Your task to perform on an android device: move a message to another label in the gmail app Image 0: 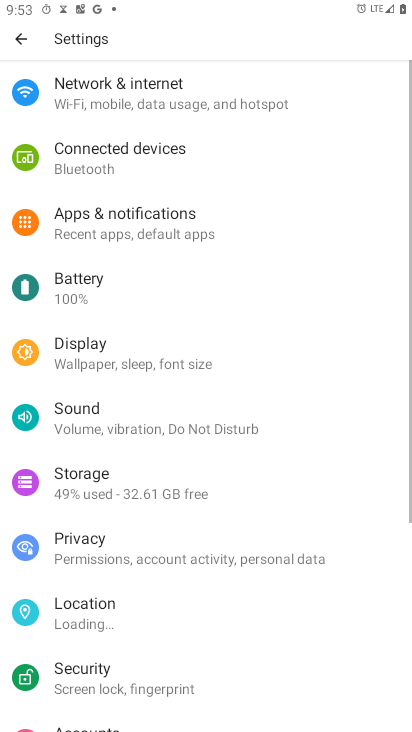
Step 0: drag from (271, 688) to (224, 423)
Your task to perform on an android device: move a message to another label in the gmail app Image 1: 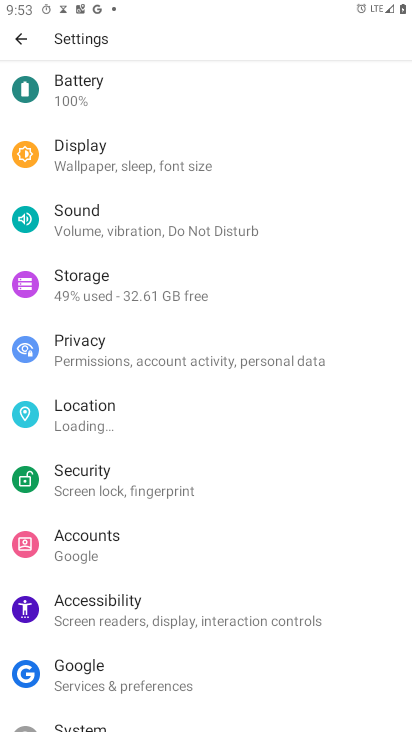
Step 1: press back button
Your task to perform on an android device: move a message to another label in the gmail app Image 2: 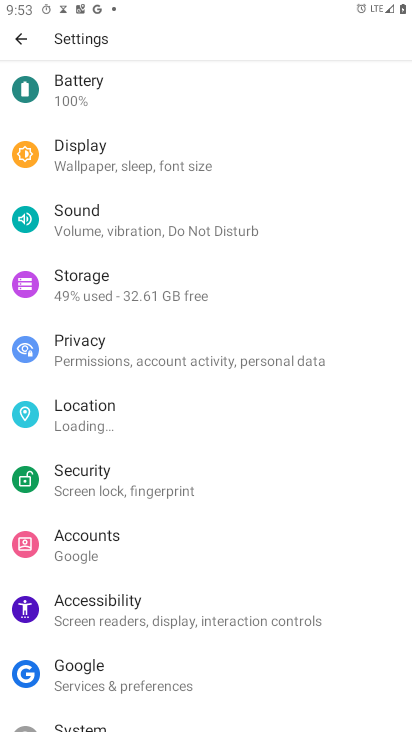
Step 2: press back button
Your task to perform on an android device: move a message to another label in the gmail app Image 3: 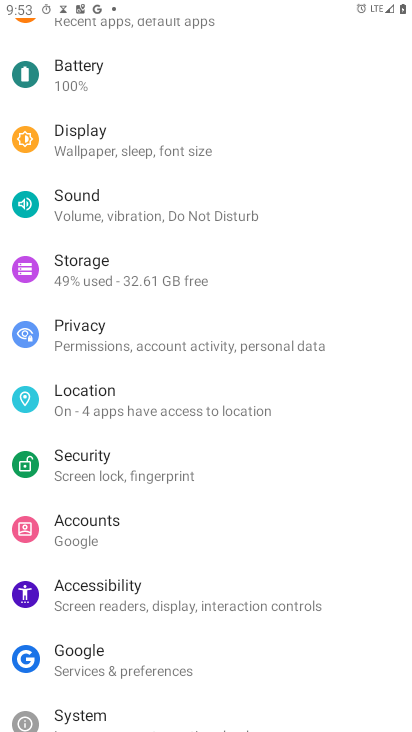
Step 3: press home button
Your task to perform on an android device: move a message to another label in the gmail app Image 4: 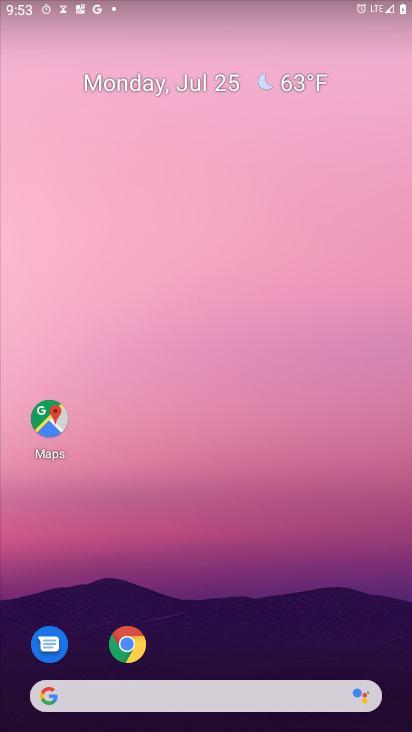
Step 4: drag from (220, 687) to (225, 376)
Your task to perform on an android device: move a message to another label in the gmail app Image 5: 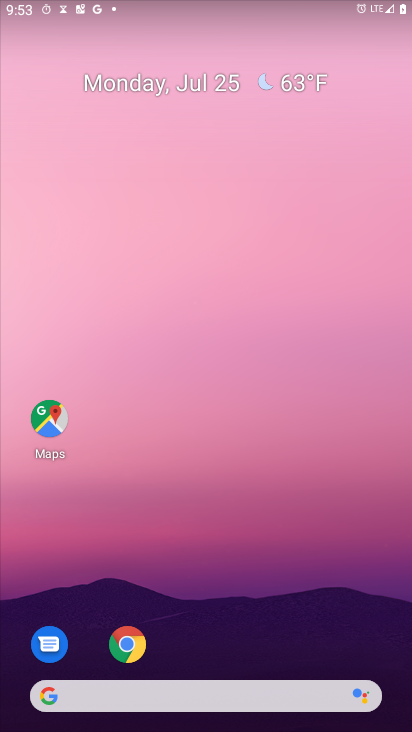
Step 5: drag from (211, 264) to (196, 225)
Your task to perform on an android device: move a message to another label in the gmail app Image 6: 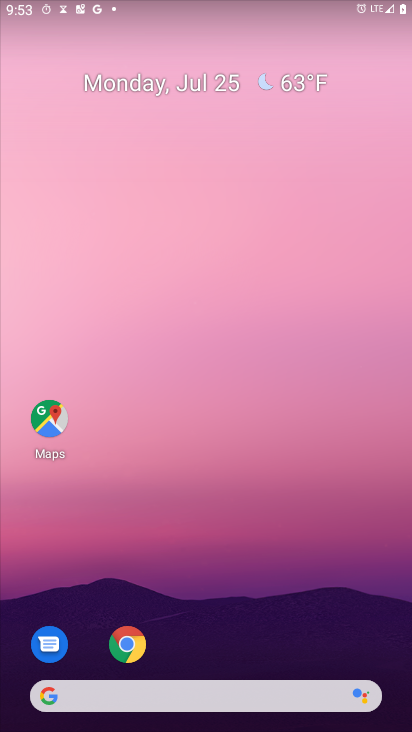
Step 6: drag from (123, 305) to (99, 138)
Your task to perform on an android device: move a message to another label in the gmail app Image 7: 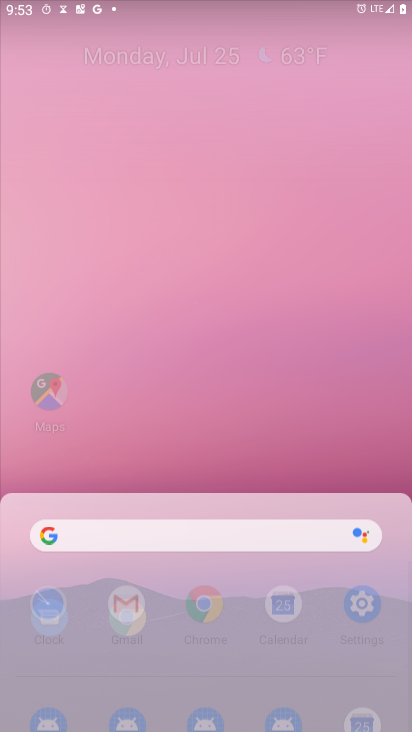
Step 7: drag from (245, 512) to (212, 139)
Your task to perform on an android device: move a message to another label in the gmail app Image 8: 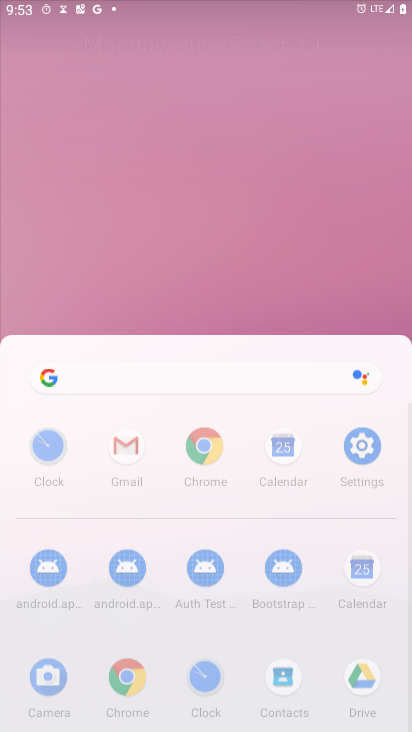
Step 8: drag from (275, 498) to (207, 181)
Your task to perform on an android device: move a message to another label in the gmail app Image 9: 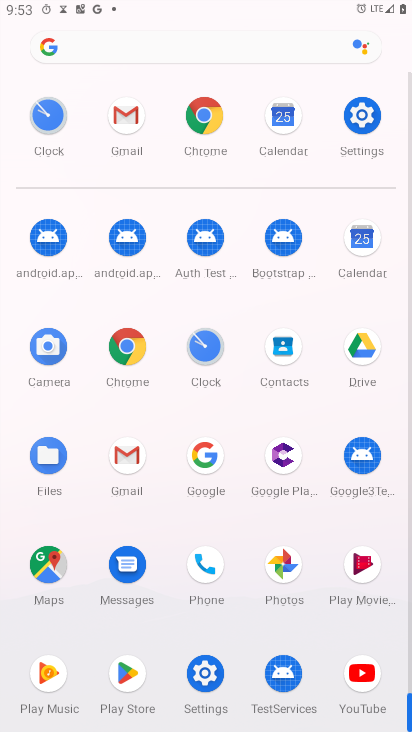
Step 9: drag from (213, 598) to (112, 190)
Your task to perform on an android device: move a message to another label in the gmail app Image 10: 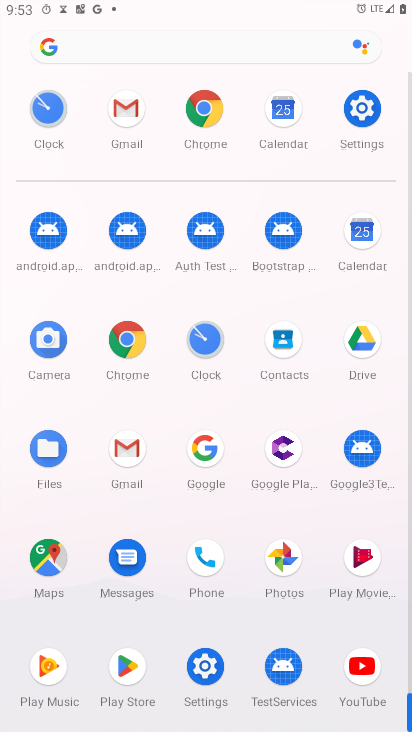
Step 10: click (103, 449)
Your task to perform on an android device: move a message to another label in the gmail app Image 11: 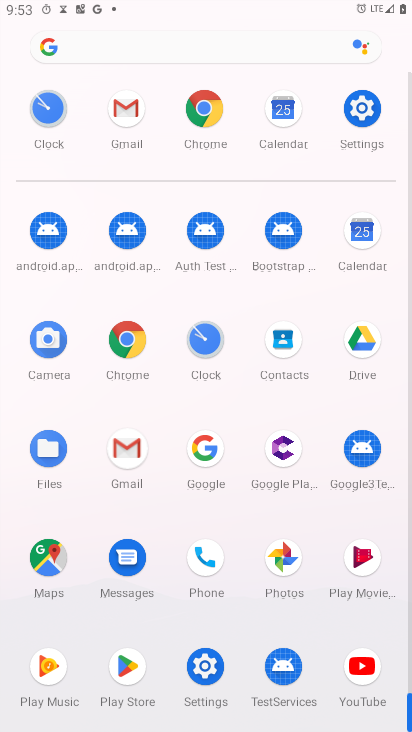
Step 11: click (103, 451)
Your task to perform on an android device: move a message to another label in the gmail app Image 12: 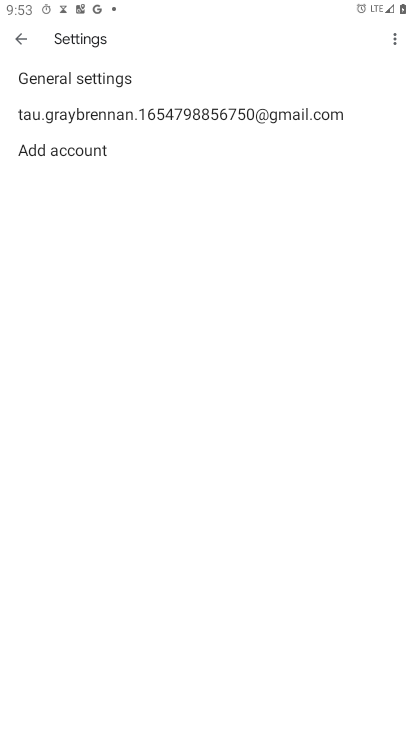
Step 12: click (112, 459)
Your task to perform on an android device: move a message to another label in the gmail app Image 13: 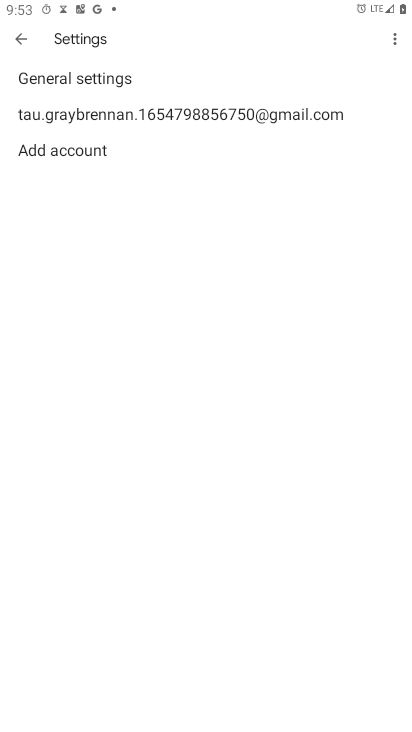
Step 13: click (10, 42)
Your task to perform on an android device: move a message to another label in the gmail app Image 14: 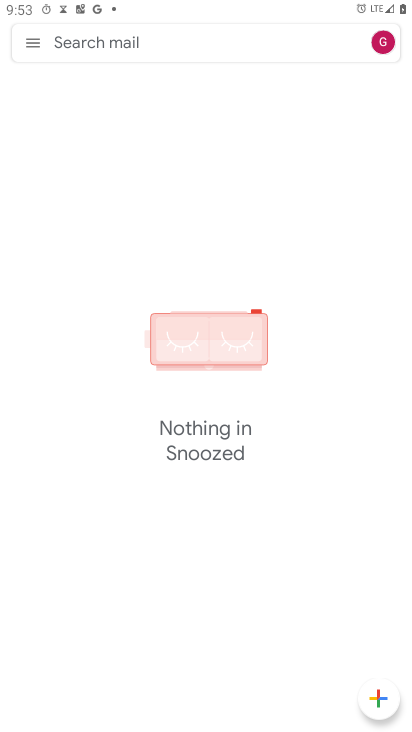
Step 14: click (26, 44)
Your task to perform on an android device: move a message to another label in the gmail app Image 15: 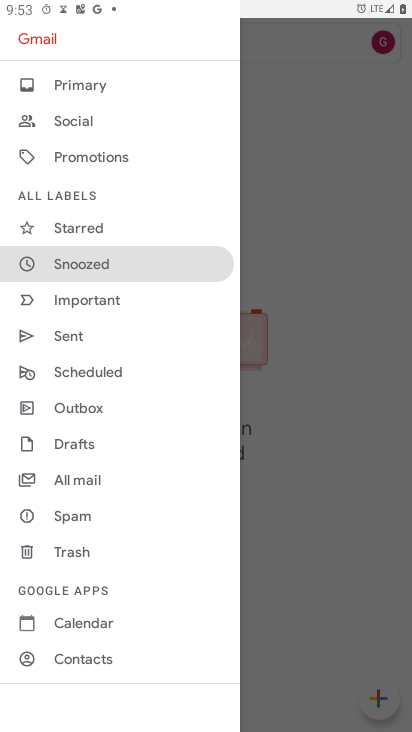
Step 15: click (81, 480)
Your task to perform on an android device: move a message to another label in the gmail app Image 16: 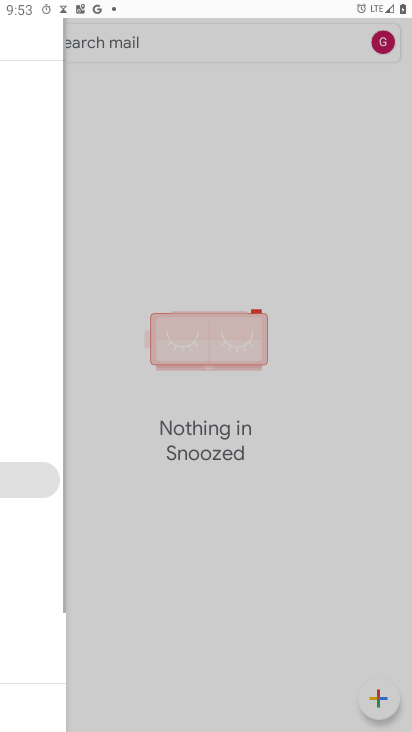
Step 16: click (81, 481)
Your task to perform on an android device: move a message to another label in the gmail app Image 17: 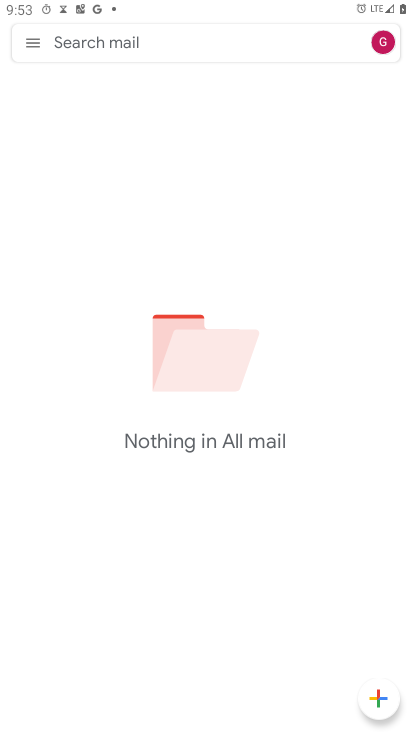
Step 17: task complete